Your task to perform on an android device: Clear the shopping cart on target.com. Search for acer predator on target.com, select the first entry, and add it to the cart. Image 0: 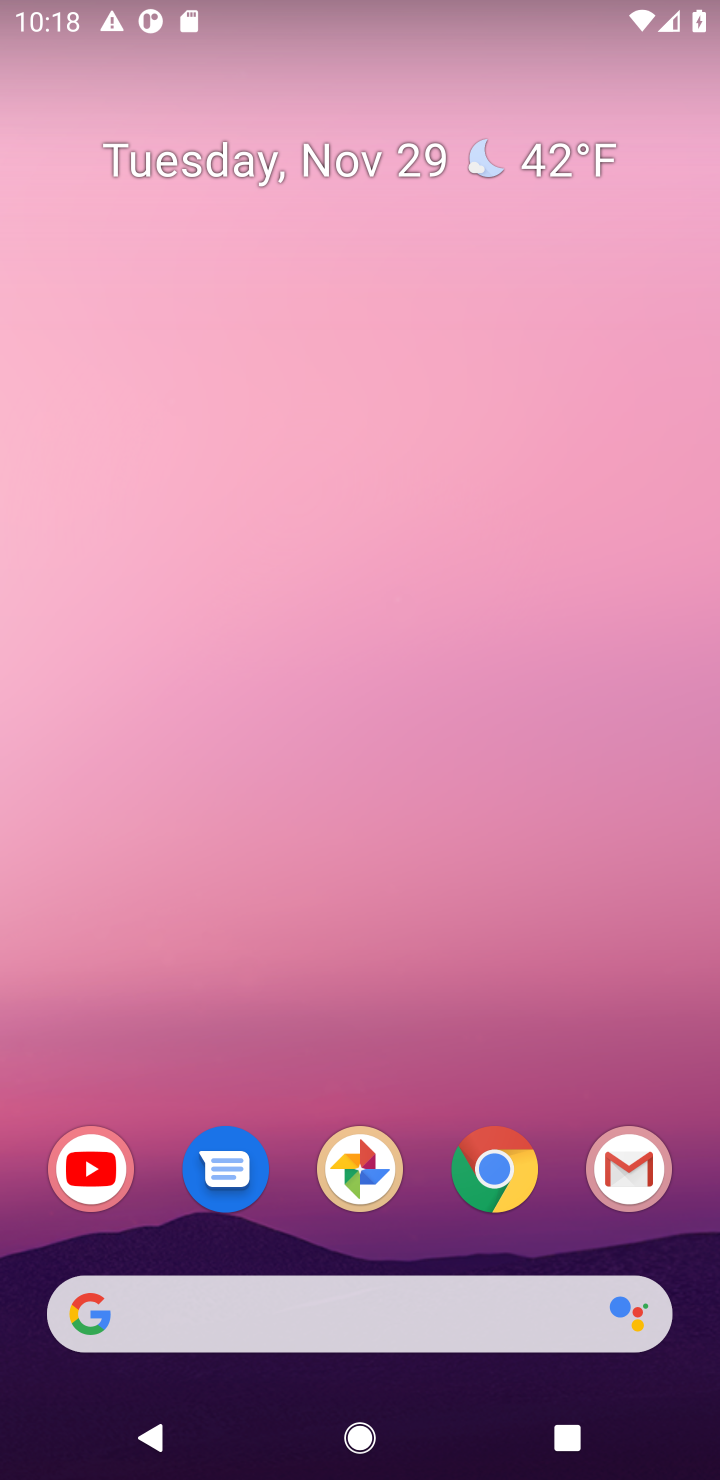
Step 0: click (315, 1336)
Your task to perform on an android device: Clear the shopping cart on target.com. Search for acer predator on target.com, select the first entry, and add it to the cart. Image 1: 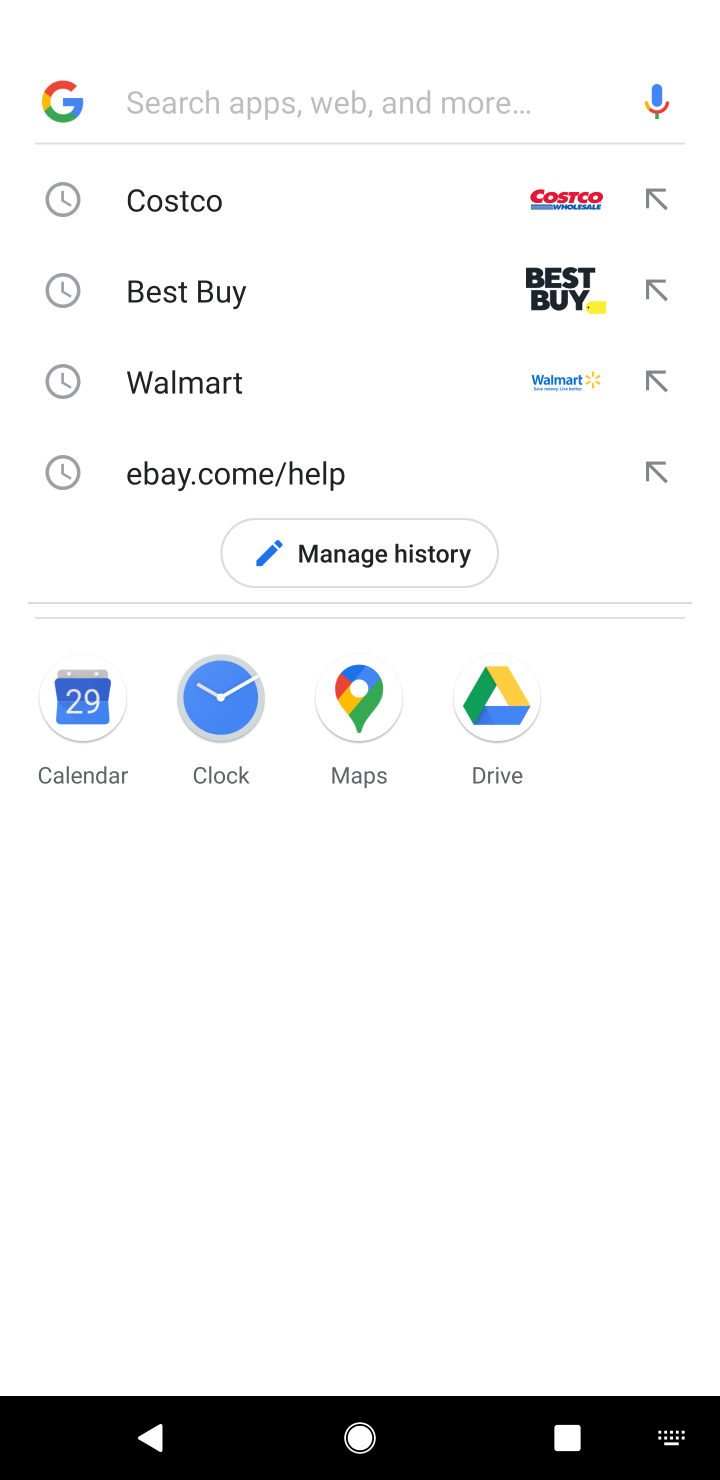
Step 1: type "target.com"
Your task to perform on an android device: Clear the shopping cart on target.com. Search for acer predator on target.com, select the first entry, and add it to the cart. Image 2: 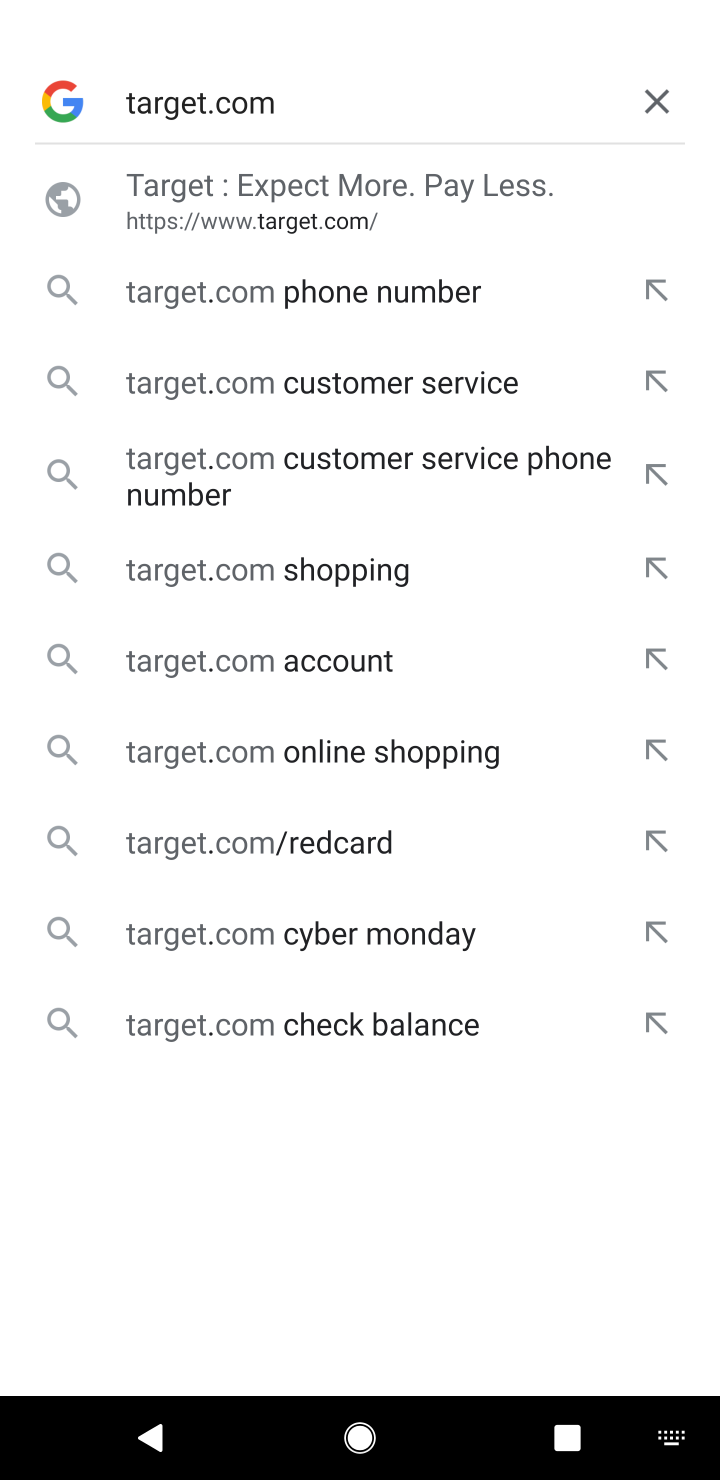
Step 2: click (261, 231)
Your task to perform on an android device: Clear the shopping cart on target.com. Search for acer predator on target.com, select the first entry, and add it to the cart. Image 3: 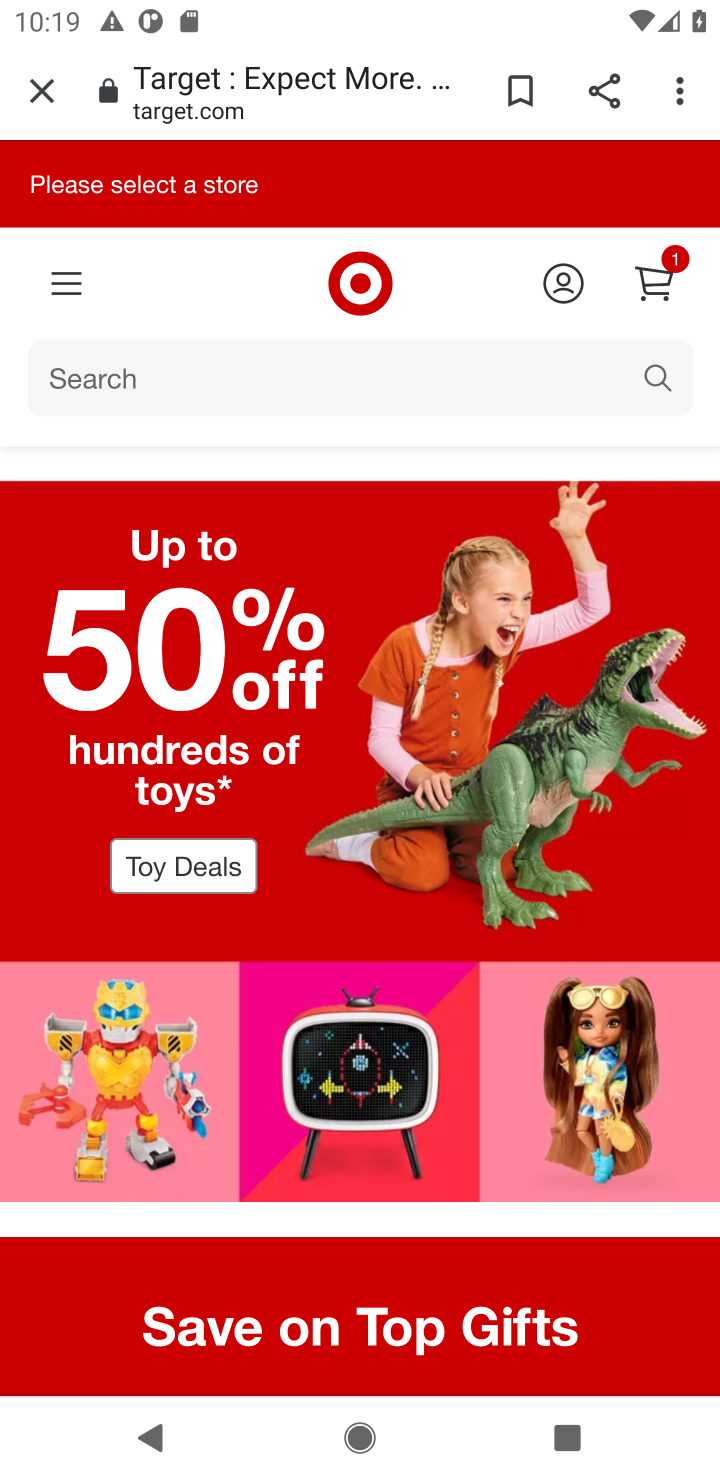
Step 3: click (185, 384)
Your task to perform on an android device: Clear the shopping cart on target.com. Search for acer predator on target.com, select the first entry, and add it to the cart. Image 4: 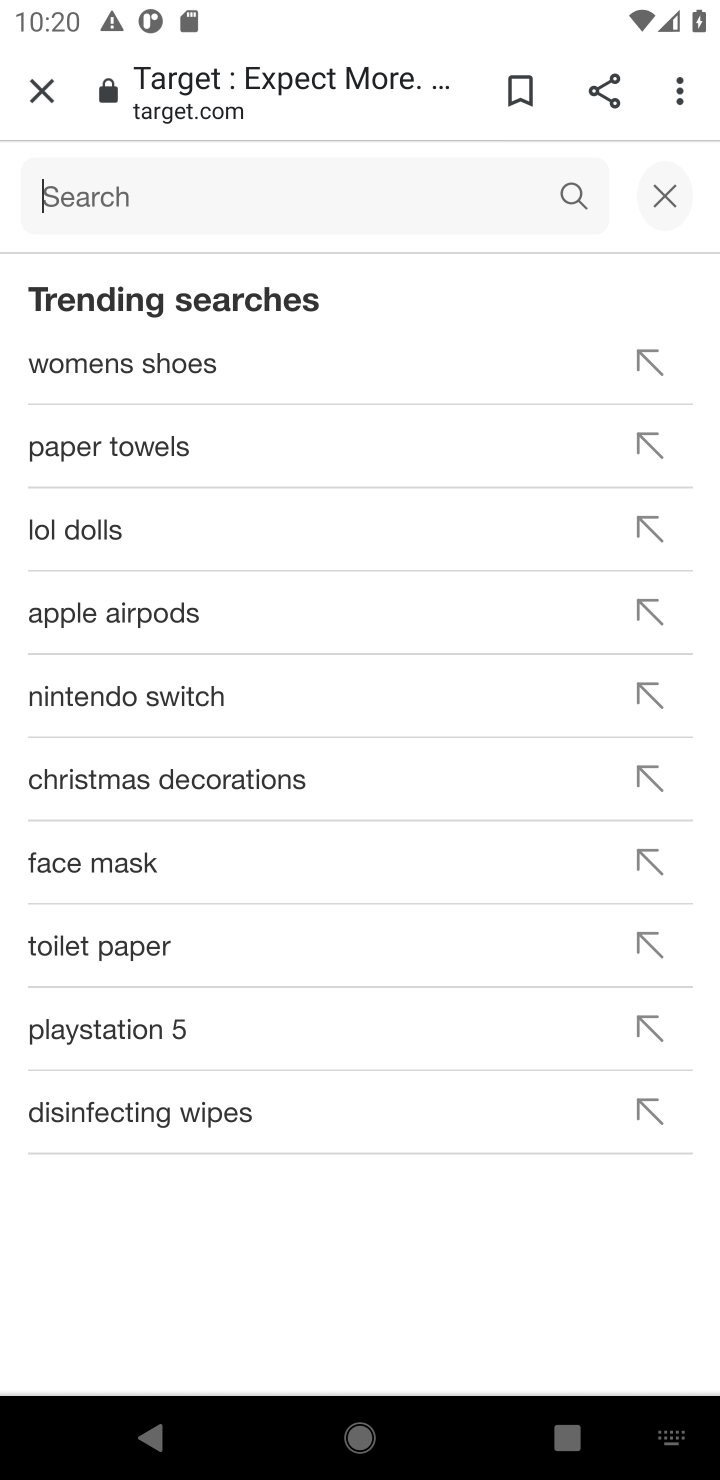
Step 4: type "acer predator"
Your task to perform on an android device: Clear the shopping cart on target.com. Search for acer predator on target.com, select the first entry, and add it to the cart. Image 5: 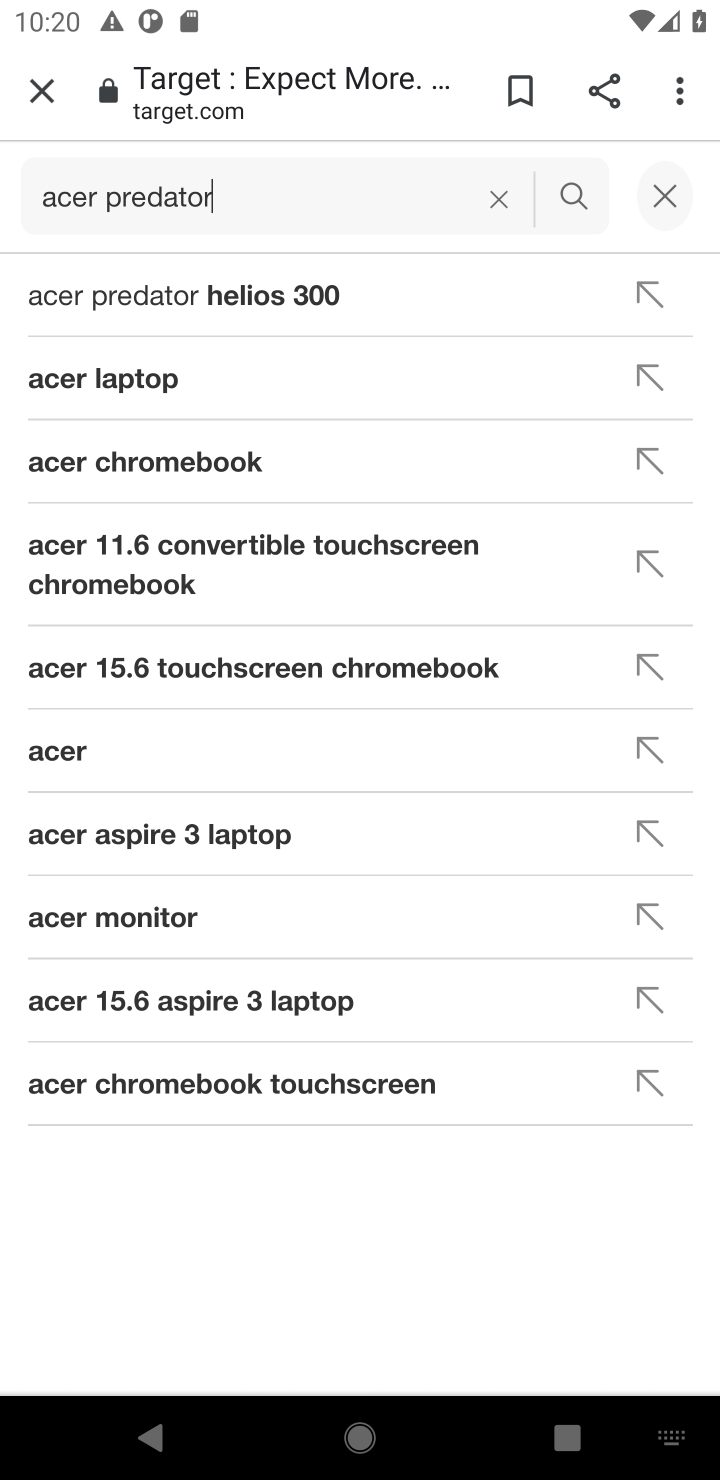
Step 5: click (149, 291)
Your task to perform on an android device: Clear the shopping cart on target.com. Search for acer predator on target.com, select the first entry, and add it to the cart. Image 6: 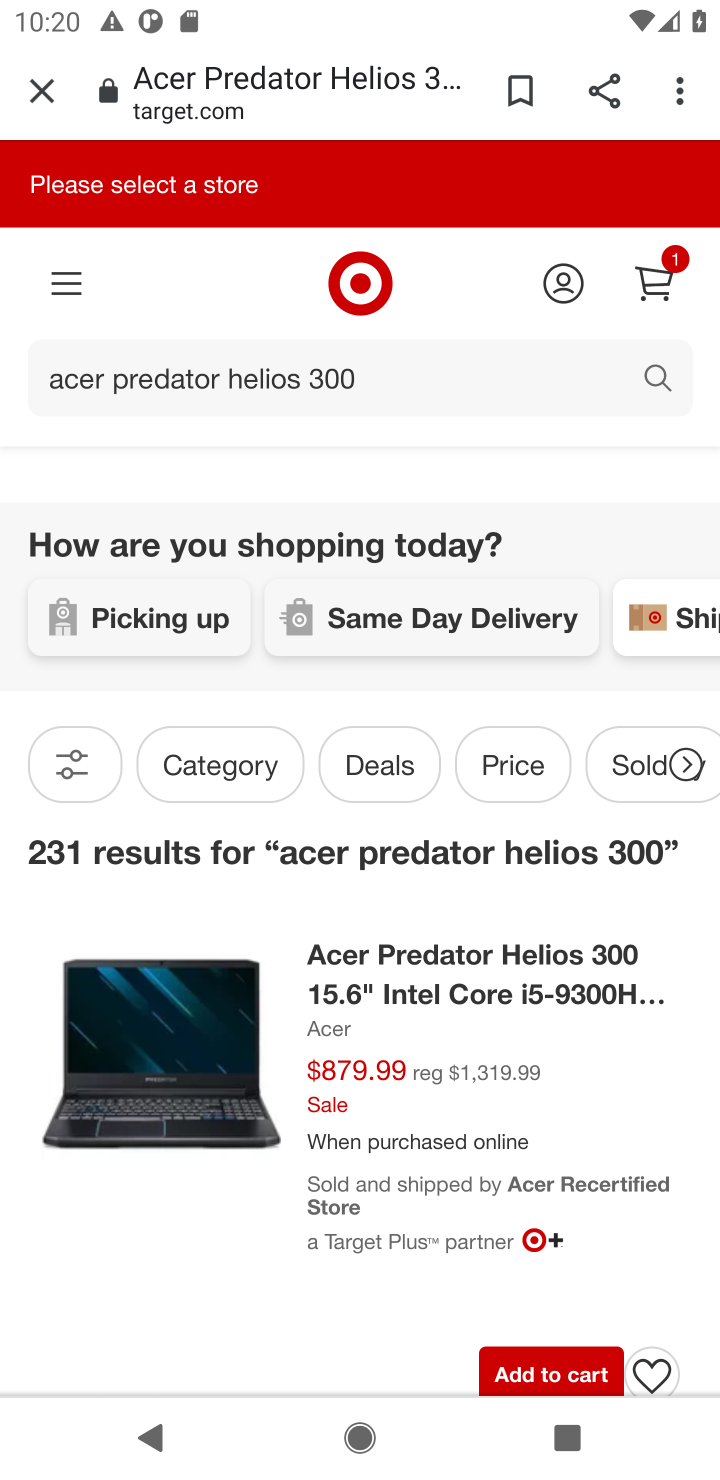
Step 6: click (509, 1379)
Your task to perform on an android device: Clear the shopping cart on target.com. Search for acer predator on target.com, select the first entry, and add it to the cart. Image 7: 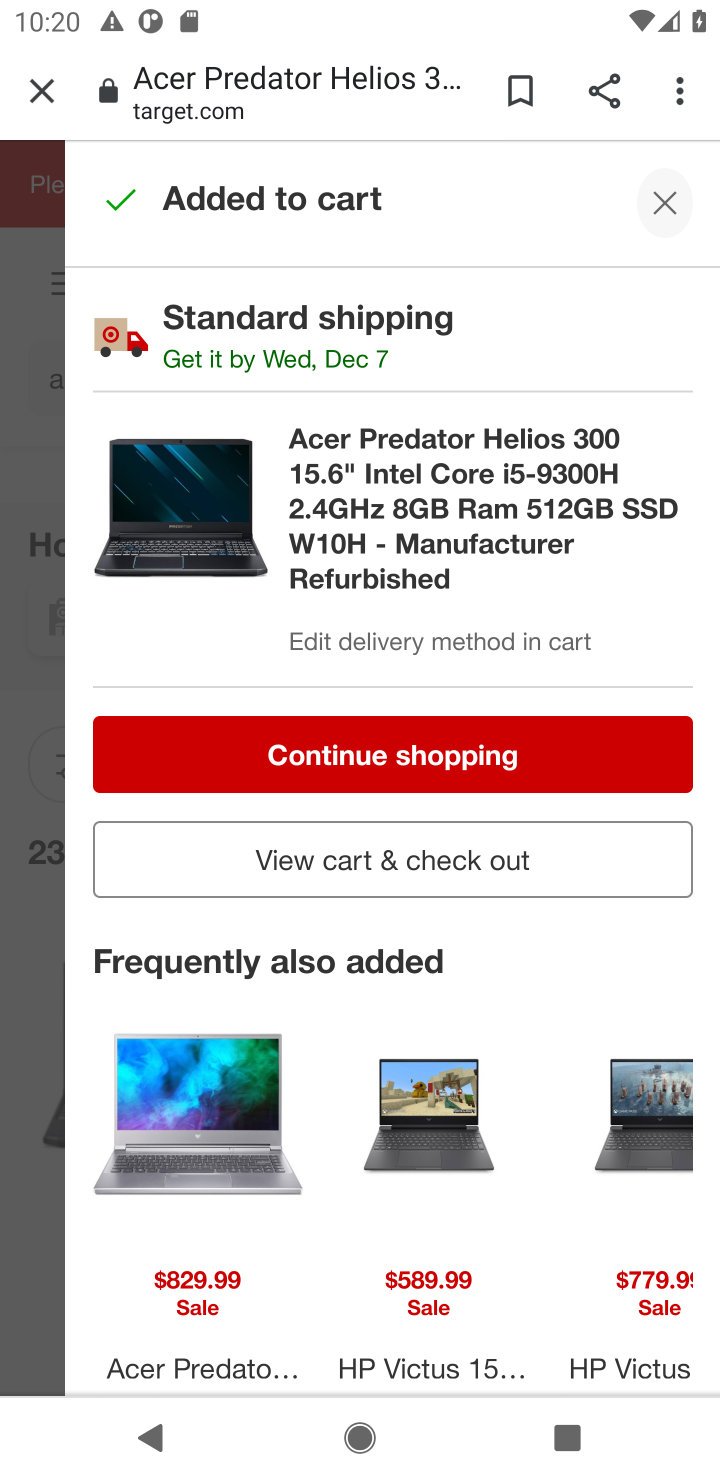
Step 7: task complete